Your task to perform on an android device: Go to accessibility settings Image 0: 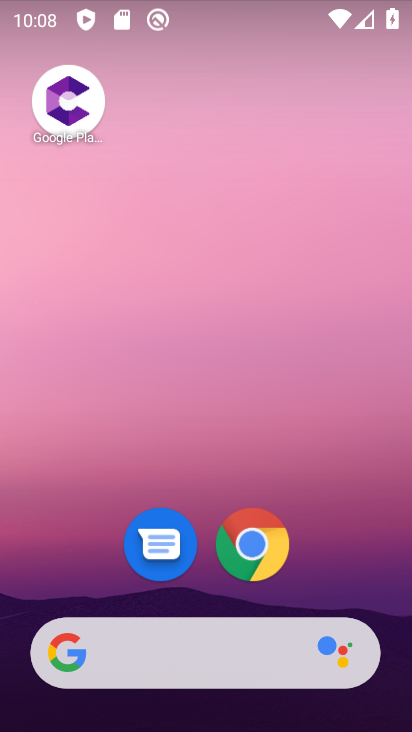
Step 0: drag from (219, 584) to (215, 169)
Your task to perform on an android device: Go to accessibility settings Image 1: 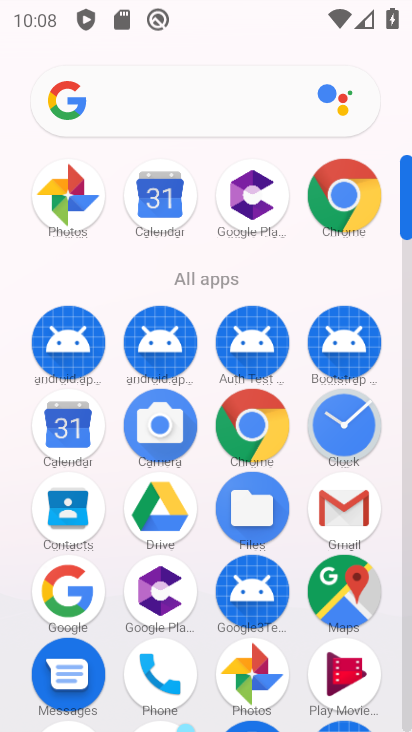
Step 1: drag from (192, 642) to (204, 341)
Your task to perform on an android device: Go to accessibility settings Image 2: 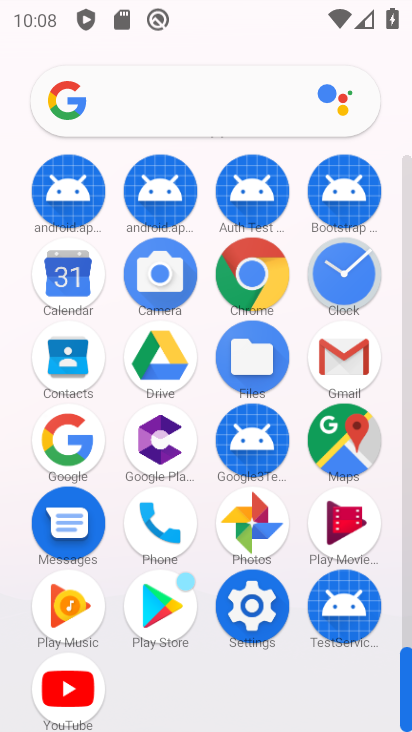
Step 2: click (256, 593)
Your task to perform on an android device: Go to accessibility settings Image 3: 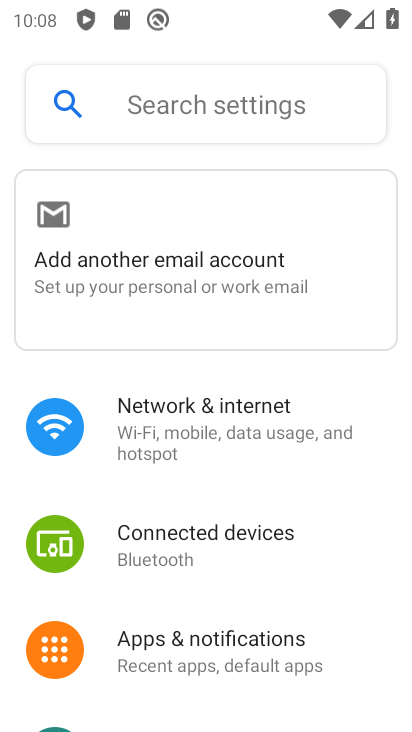
Step 3: drag from (250, 593) to (230, 277)
Your task to perform on an android device: Go to accessibility settings Image 4: 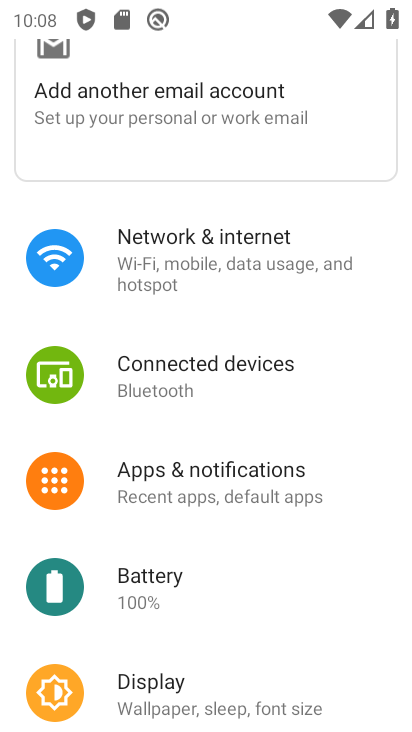
Step 4: drag from (240, 640) to (259, 340)
Your task to perform on an android device: Go to accessibility settings Image 5: 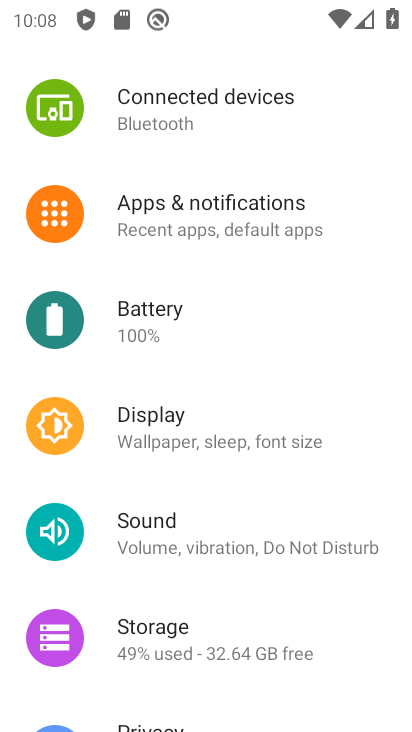
Step 5: drag from (231, 603) to (251, 281)
Your task to perform on an android device: Go to accessibility settings Image 6: 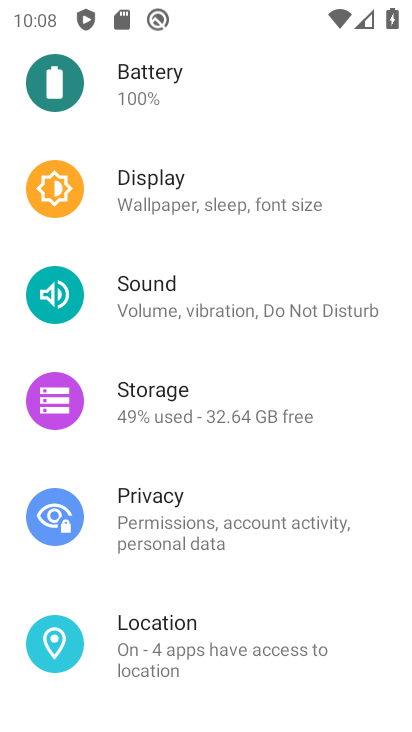
Step 6: drag from (213, 676) to (241, 410)
Your task to perform on an android device: Go to accessibility settings Image 7: 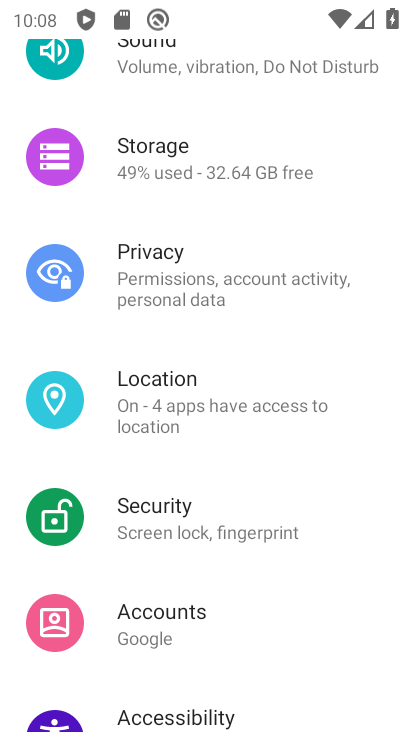
Step 7: click (212, 700)
Your task to perform on an android device: Go to accessibility settings Image 8: 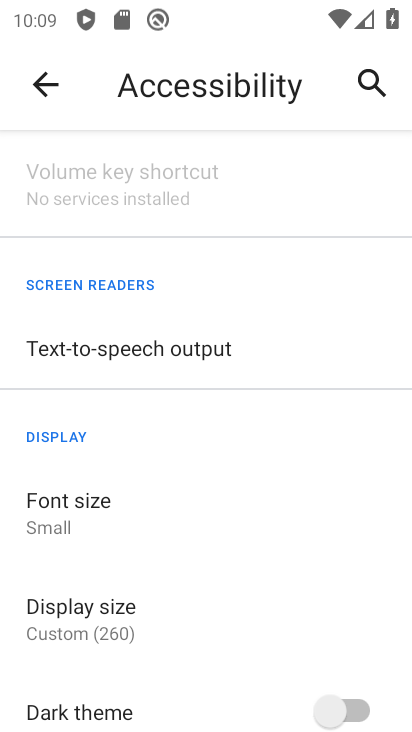
Step 8: task complete